Your task to perform on an android device: open app "PlayWell" (install if not already installed) Image 0: 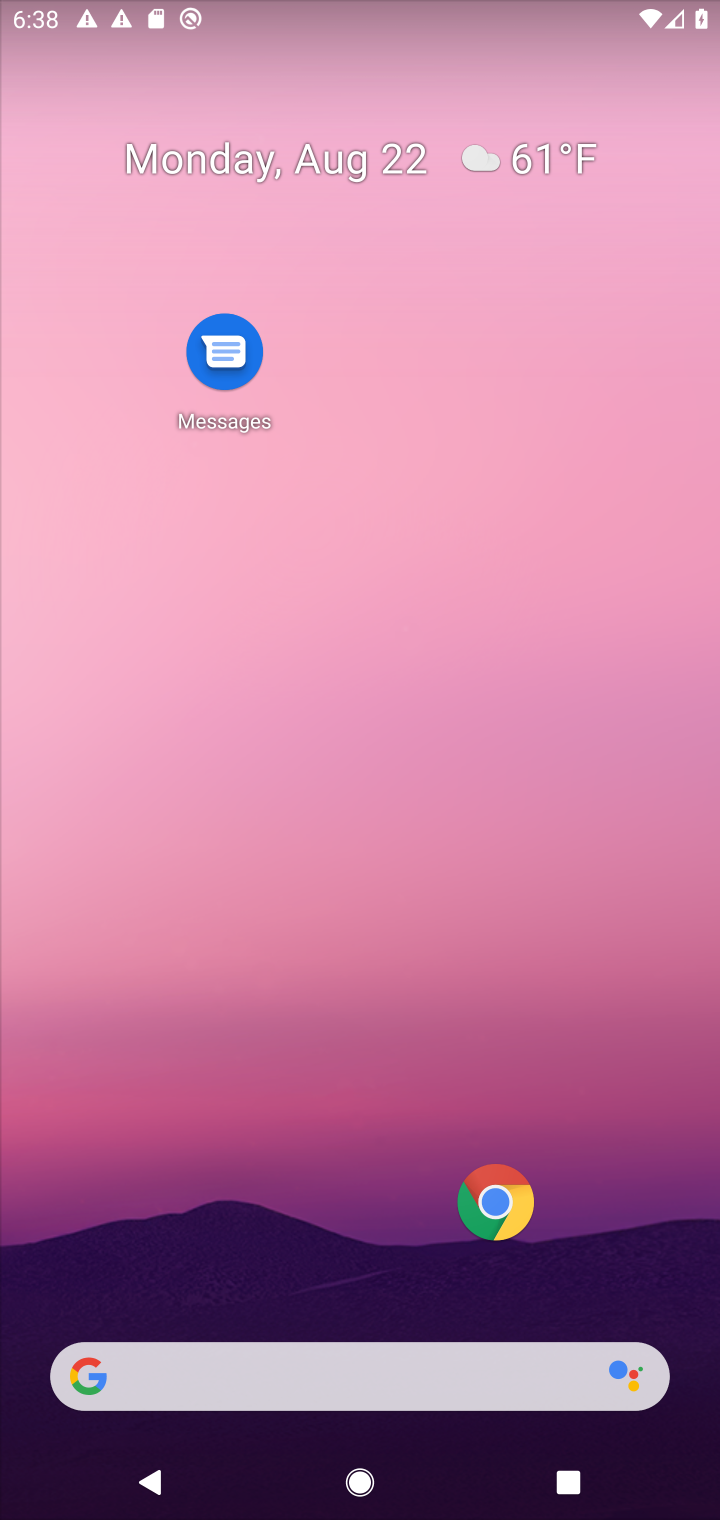
Step 0: drag from (324, 931) to (396, 370)
Your task to perform on an android device: open app "PlayWell" (install if not already installed) Image 1: 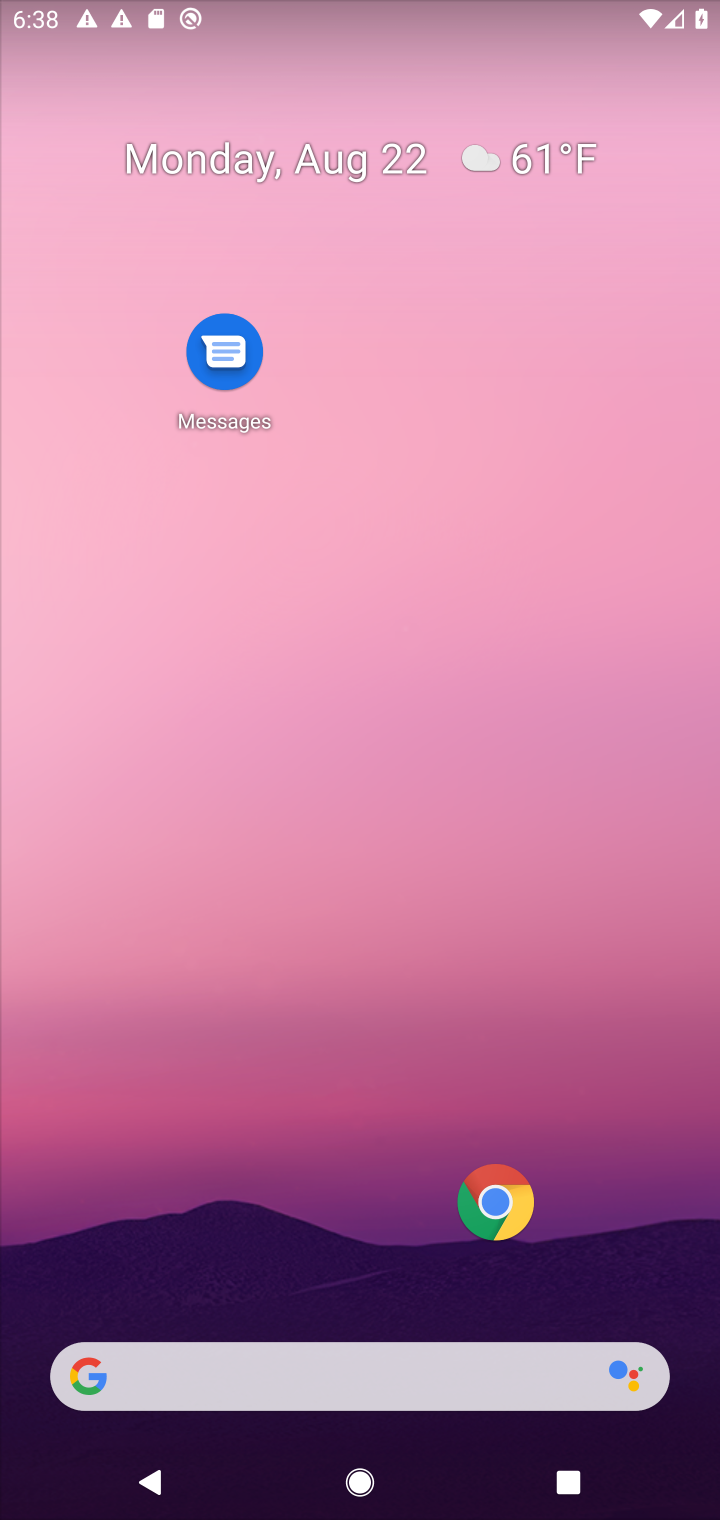
Step 1: drag from (401, 1231) to (420, 299)
Your task to perform on an android device: open app "PlayWell" (install if not already installed) Image 2: 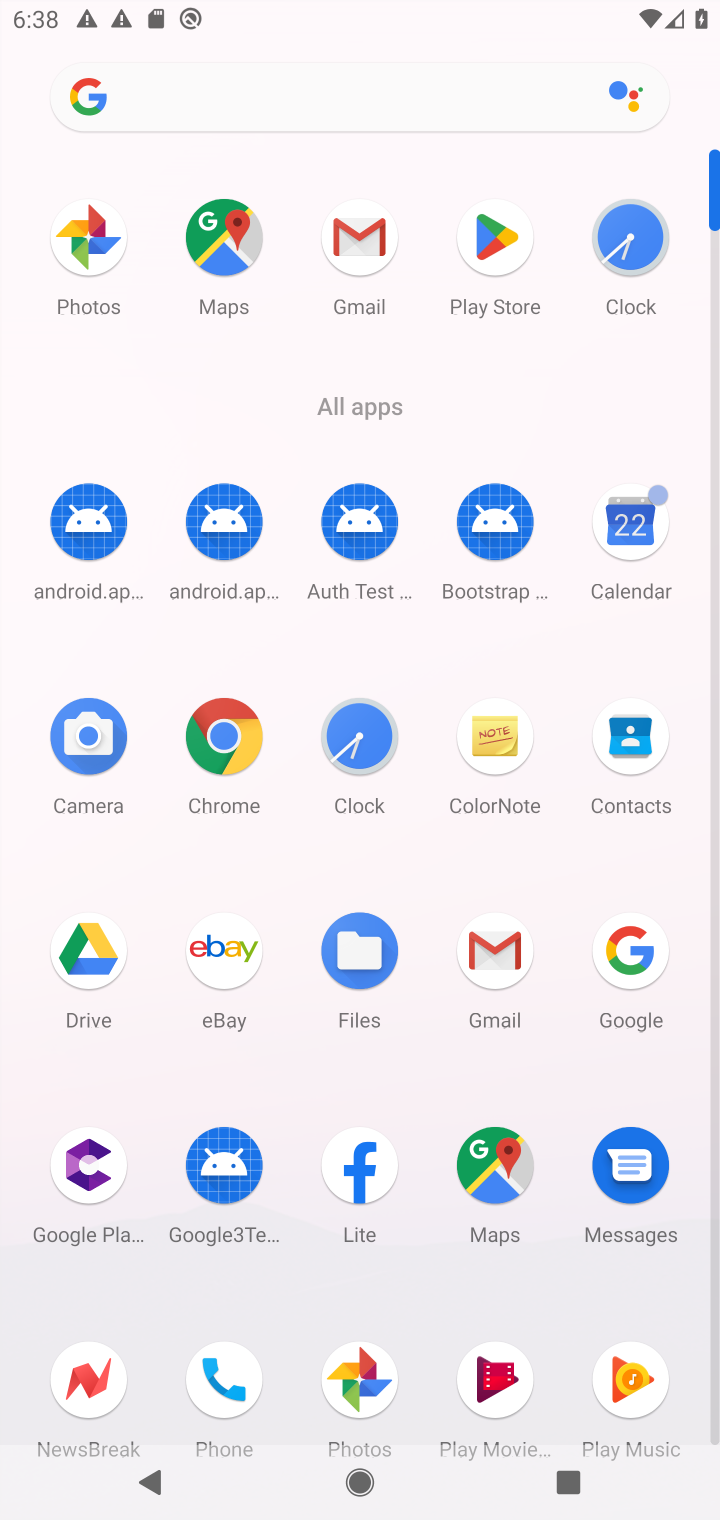
Step 2: click (480, 223)
Your task to perform on an android device: open app "PlayWell" (install if not already installed) Image 3: 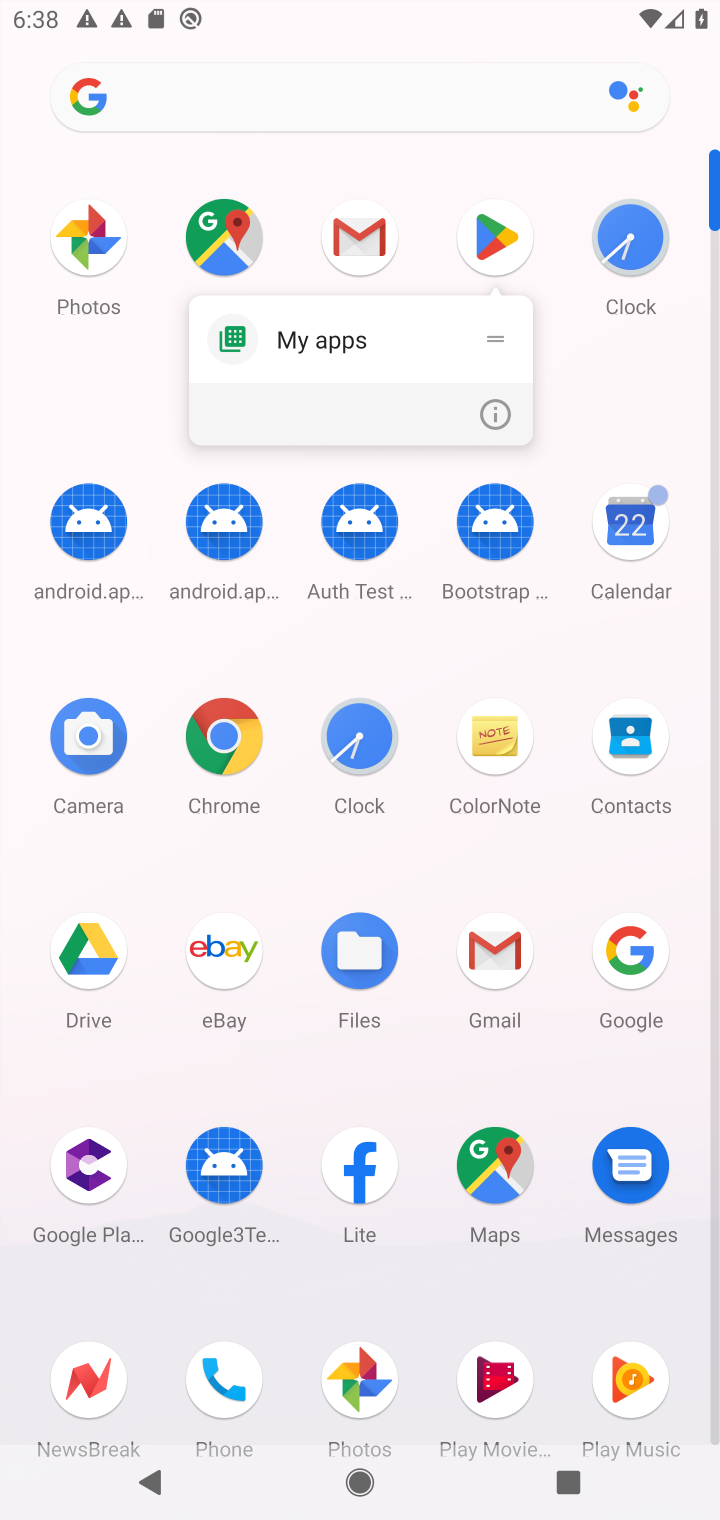
Step 3: click (495, 244)
Your task to perform on an android device: open app "PlayWell" (install if not already installed) Image 4: 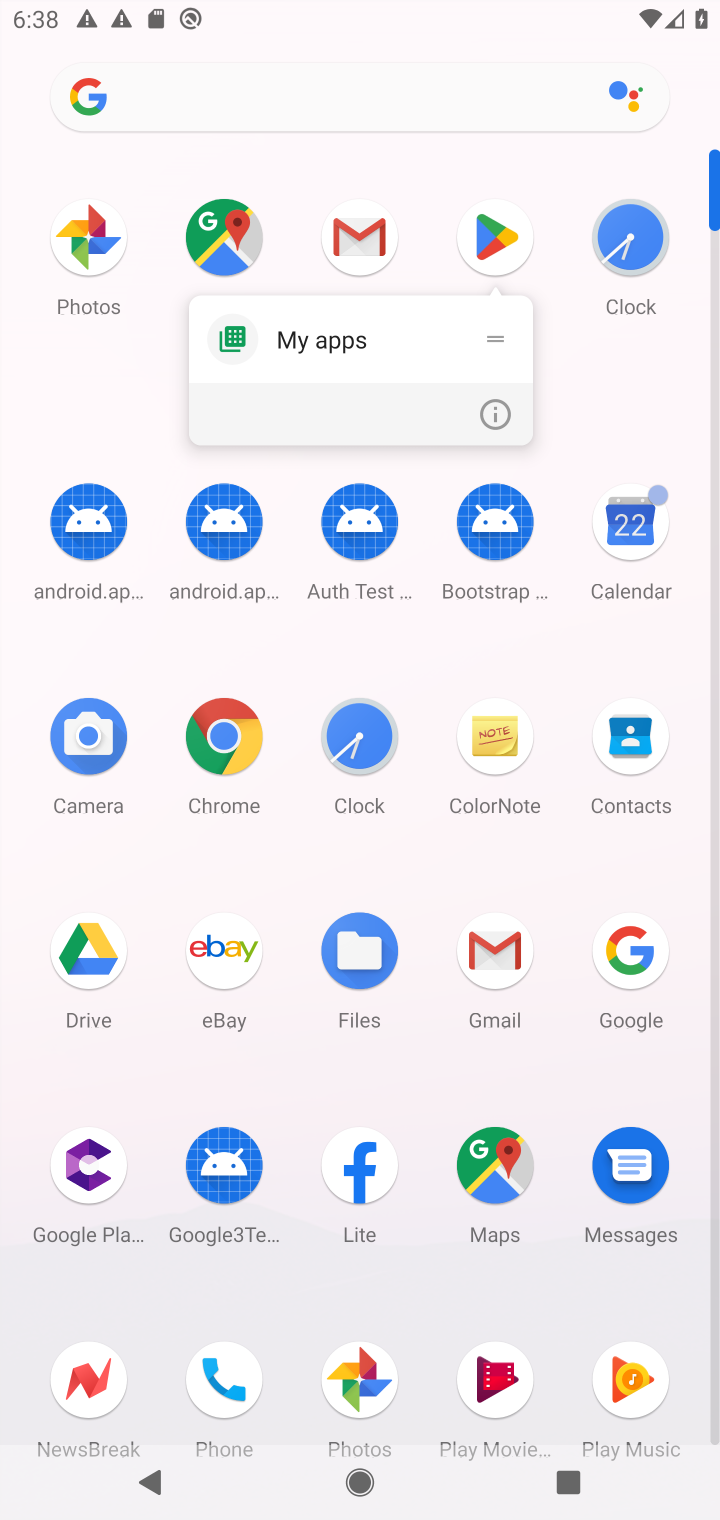
Step 4: click (510, 246)
Your task to perform on an android device: open app "PlayWell" (install if not already installed) Image 5: 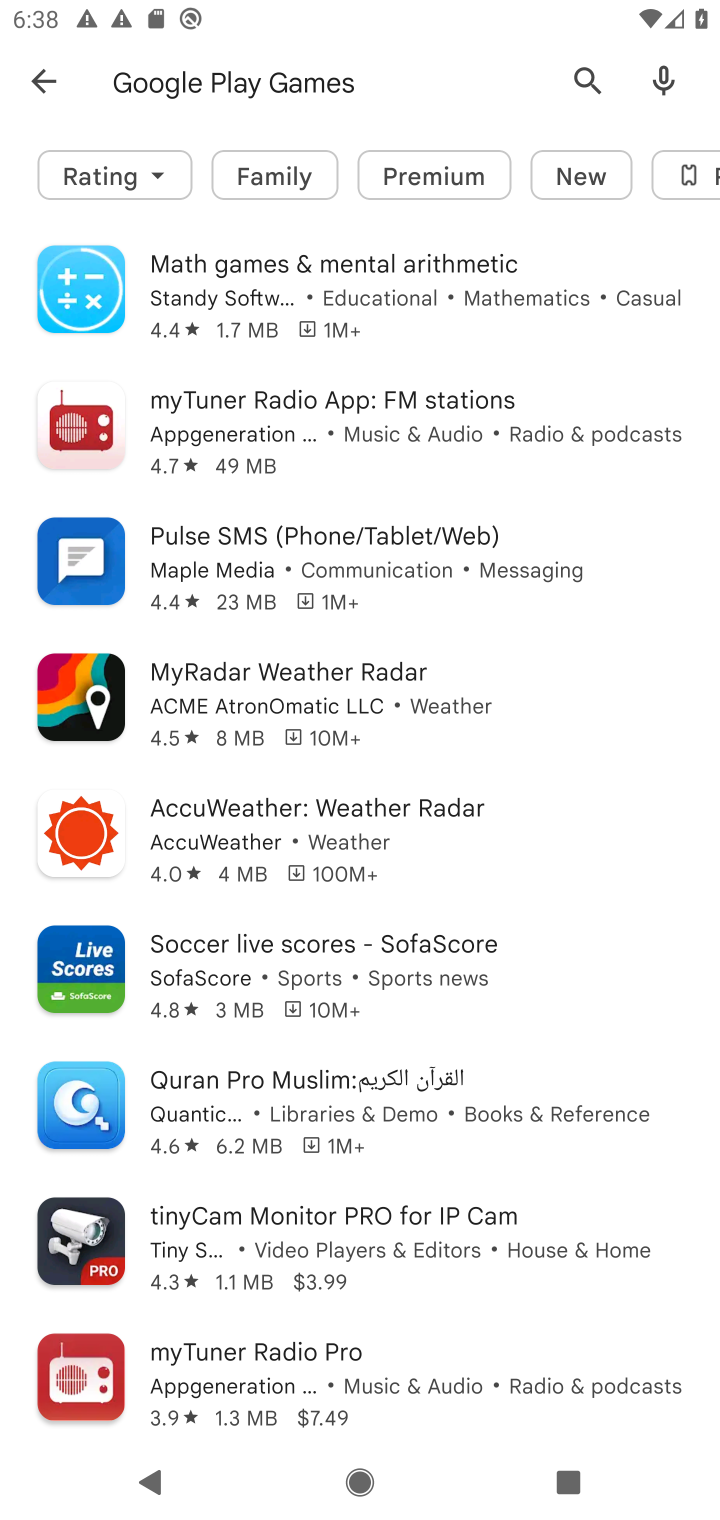
Step 5: click (592, 74)
Your task to perform on an android device: open app "PlayWell" (install if not already installed) Image 6: 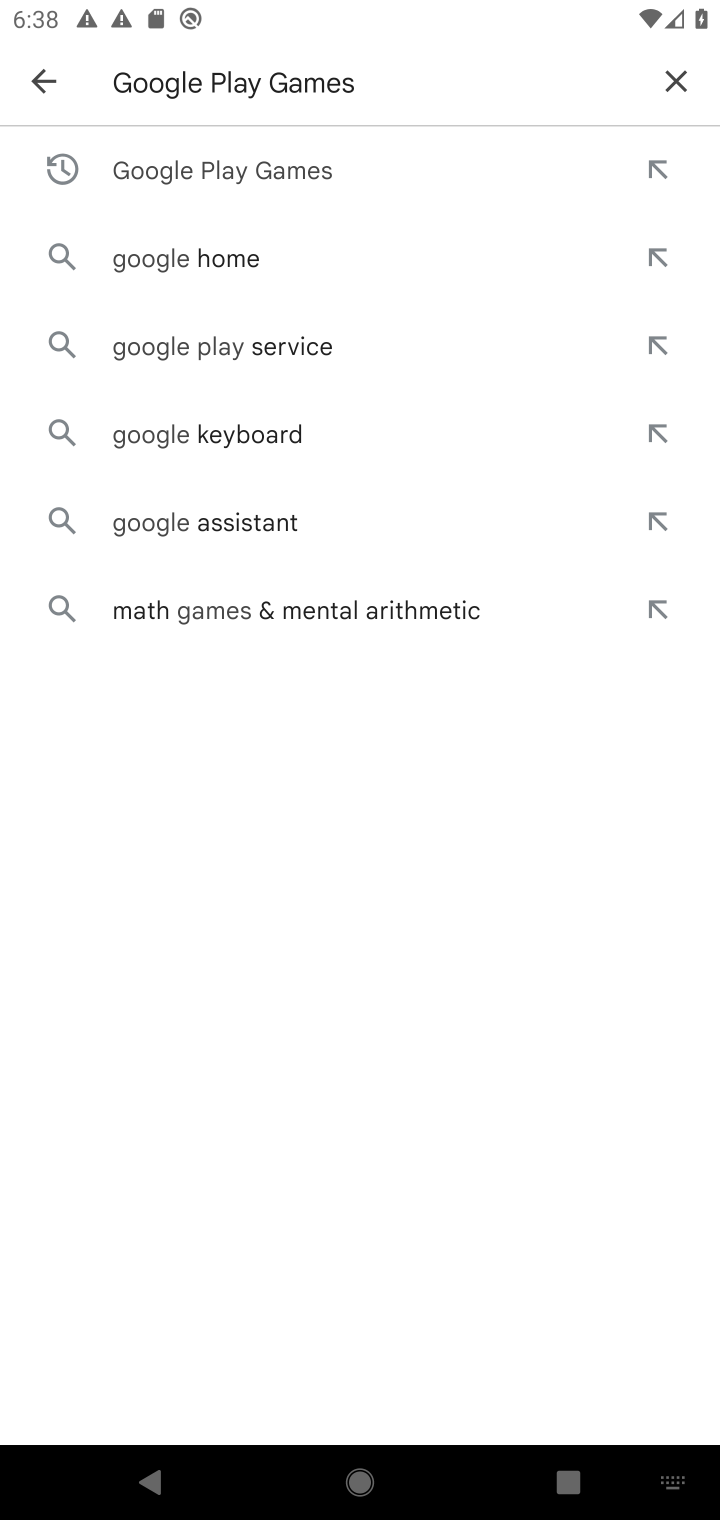
Step 6: click (672, 83)
Your task to perform on an android device: open app "PlayWell" (install if not already installed) Image 7: 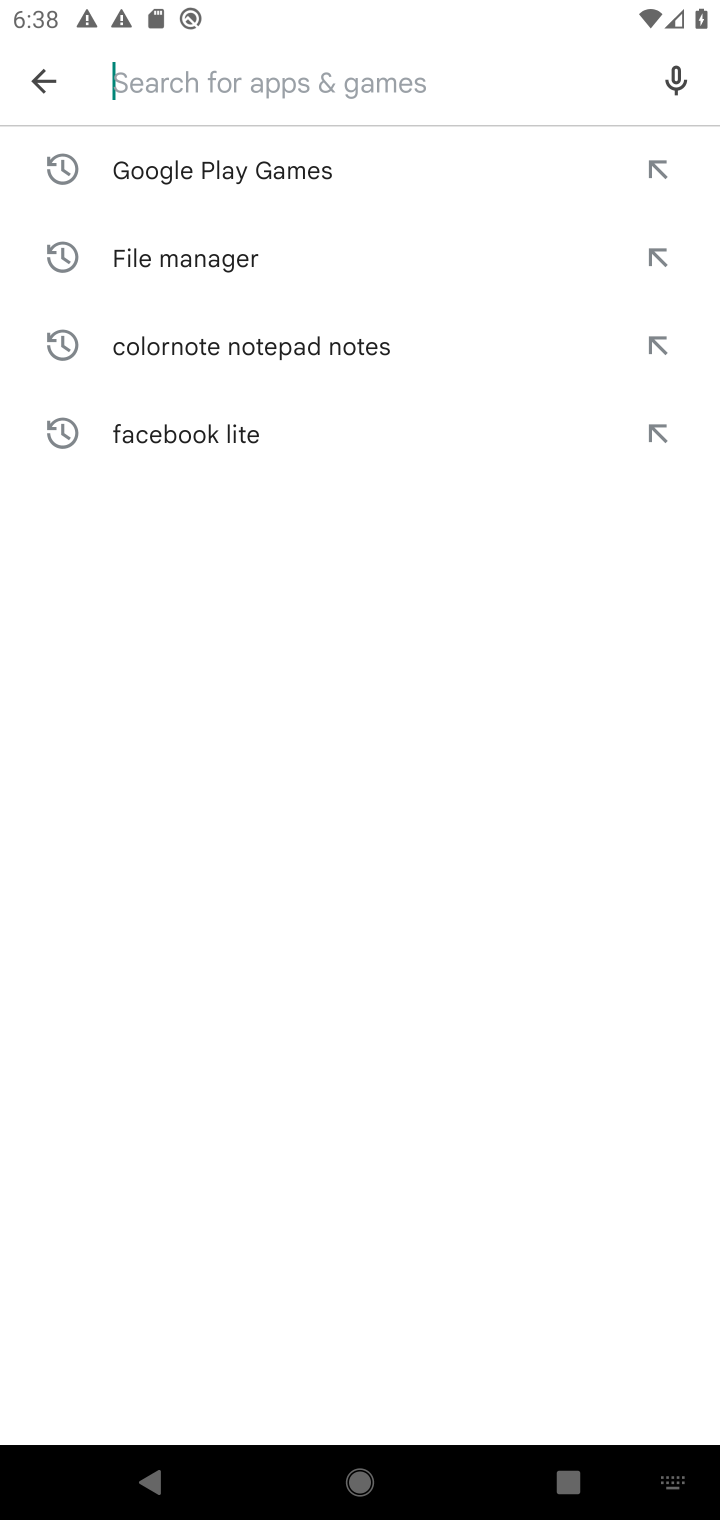
Step 7: type "PlayWell"
Your task to perform on an android device: open app "PlayWell" (install if not already installed) Image 8: 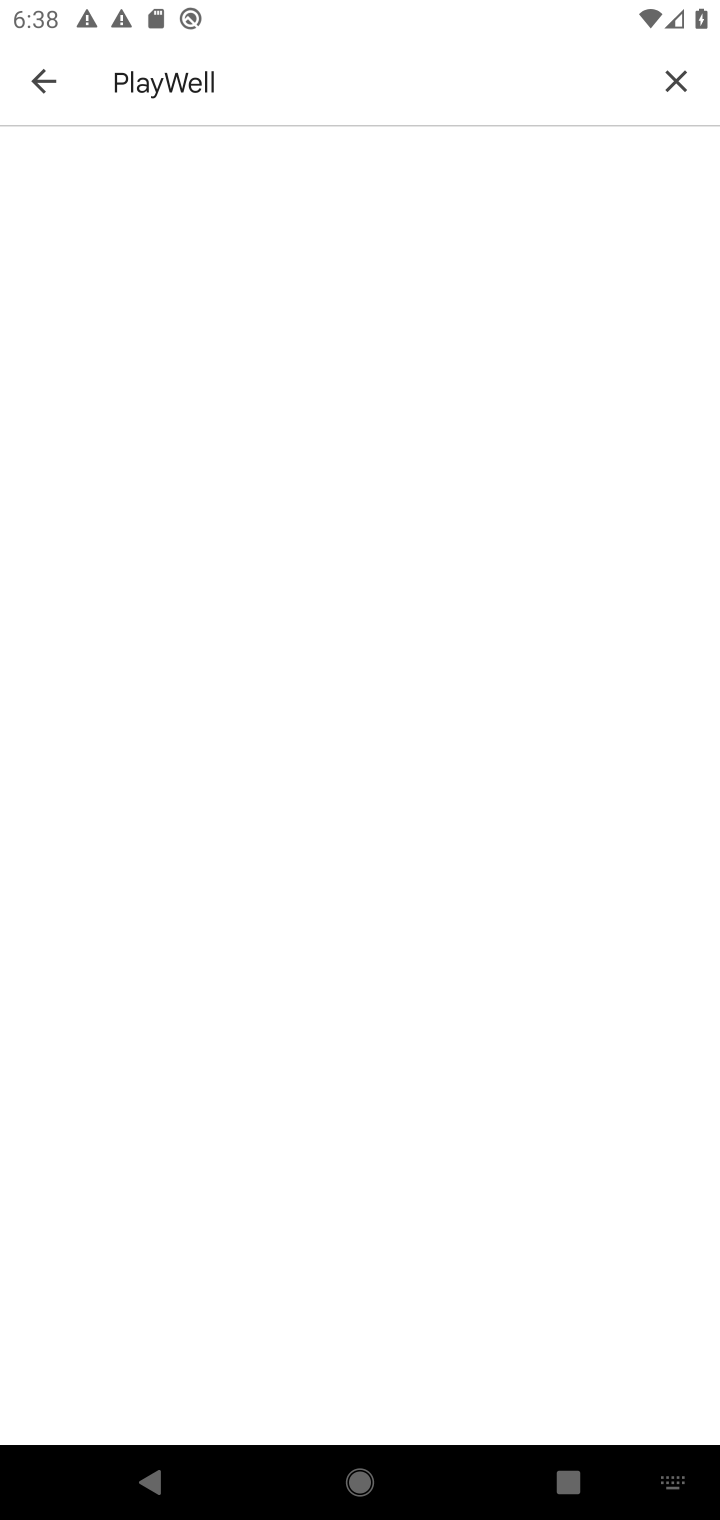
Step 8: task complete